Your task to perform on an android device: toggle notifications settings in the gmail app Image 0: 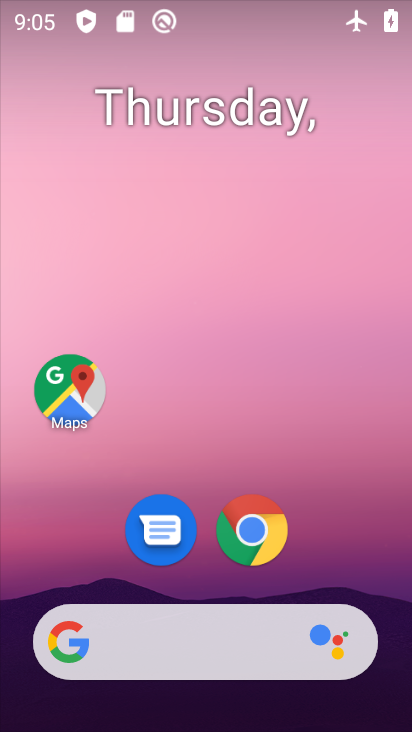
Step 0: drag from (331, 539) to (257, 11)
Your task to perform on an android device: toggle notifications settings in the gmail app Image 1: 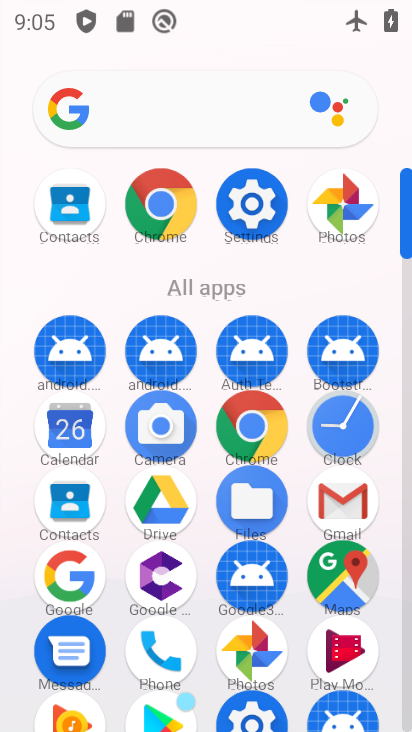
Step 1: drag from (15, 558) to (29, 248)
Your task to perform on an android device: toggle notifications settings in the gmail app Image 2: 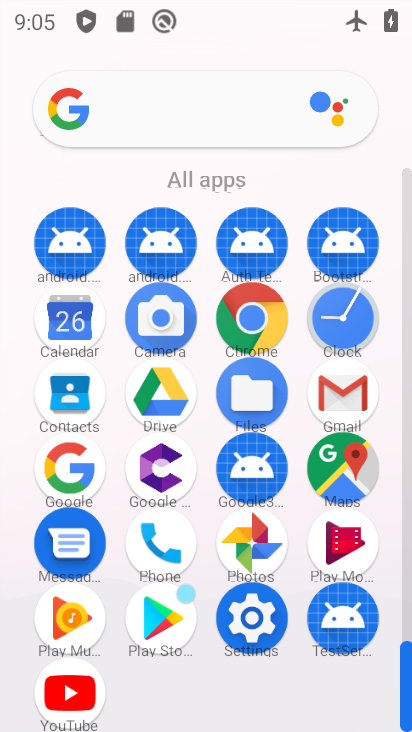
Step 2: click (344, 390)
Your task to perform on an android device: toggle notifications settings in the gmail app Image 3: 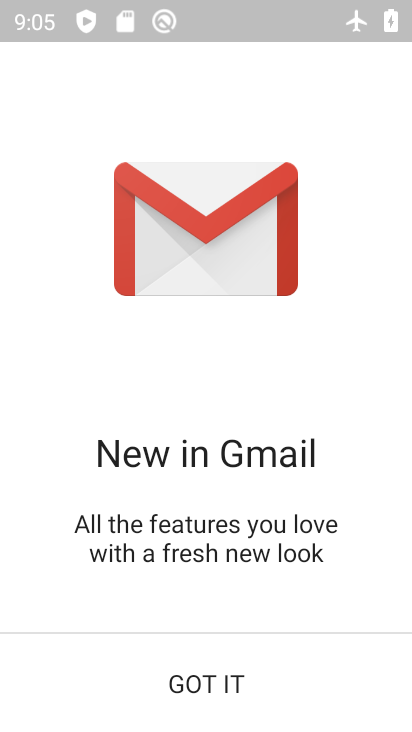
Step 3: click (220, 703)
Your task to perform on an android device: toggle notifications settings in the gmail app Image 4: 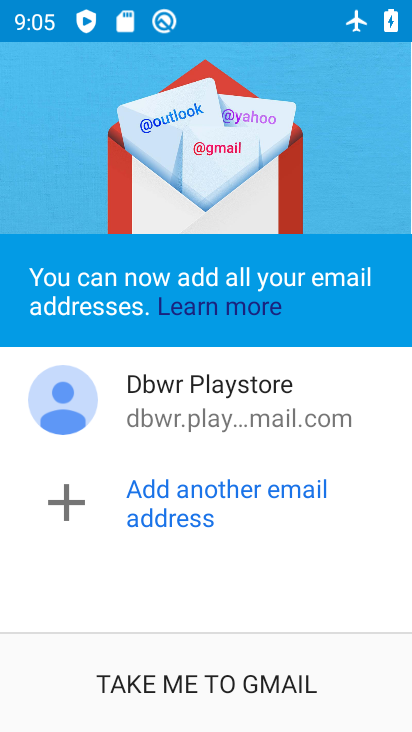
Step 4: click (217, 686)
Your task to perform on an android device: toggle notifications settings in the gmail app Image 5: 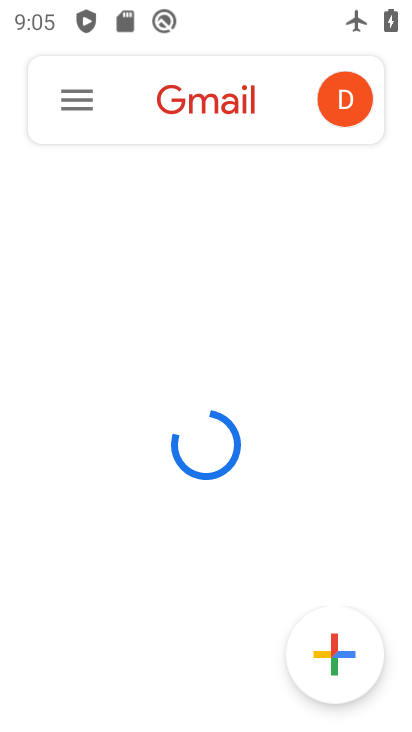
Step 5: click (88, 107)
Your task to perform on an android device: toggle notifications settings in the gmail app Image 6: 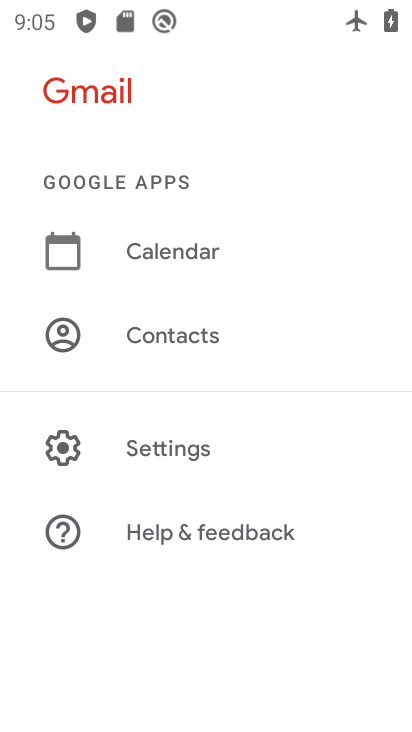
Step 6: click (175, 467)
Your task to perform on an android device: toggle notifications settings in the gmail app Image 7: 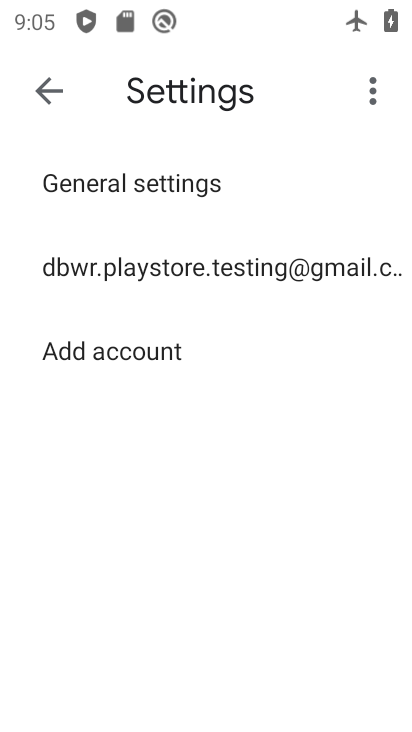
Step 7: click (200, 256)
Your task to perform on an android device: toggle notifications settings in the gmail app Image 8: 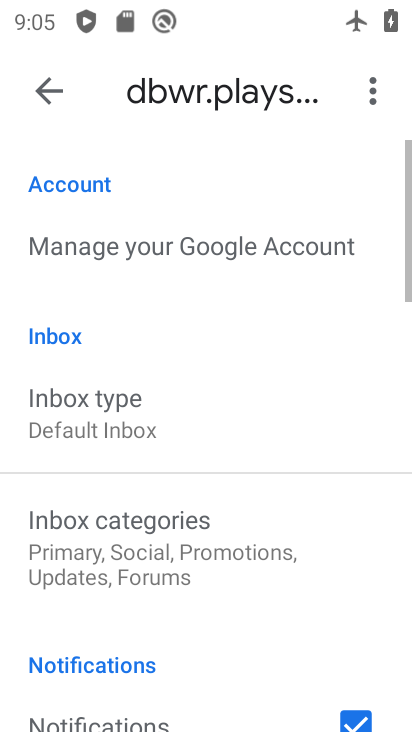
Step 8: drag from (233, 585) to (241, 204)
Your task to perform on an android device: toggle notifications settings in the gmail app Image 9: 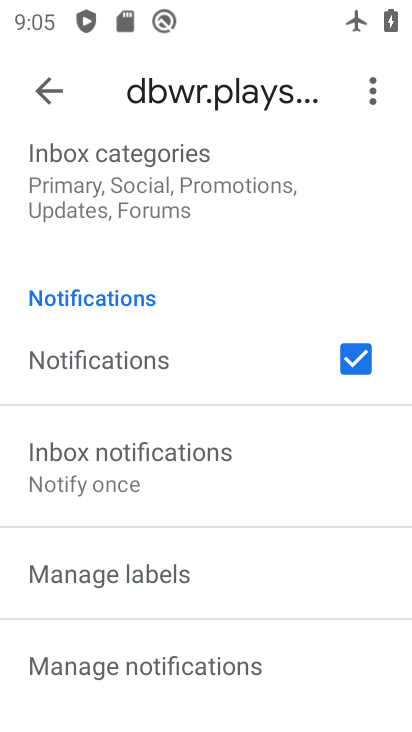
Step 9: click (184, 659)
Your task to perform on an android device: toggle notifications settings in the gmail app Image 10: 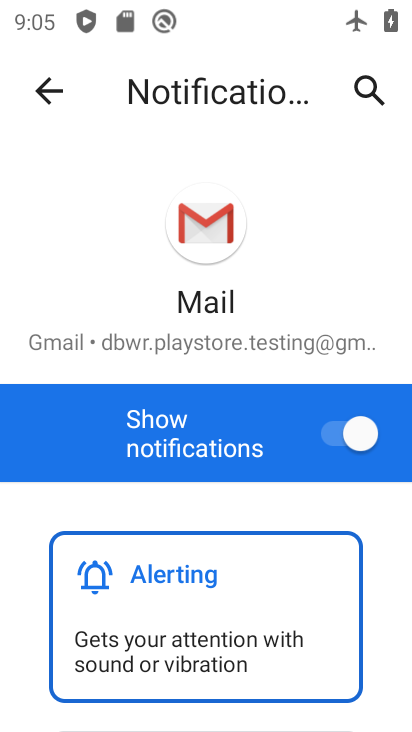
Step 10: click (353, 422)
Your task to perform on an android device: toggle notifications settings in the gmail app Image 11: 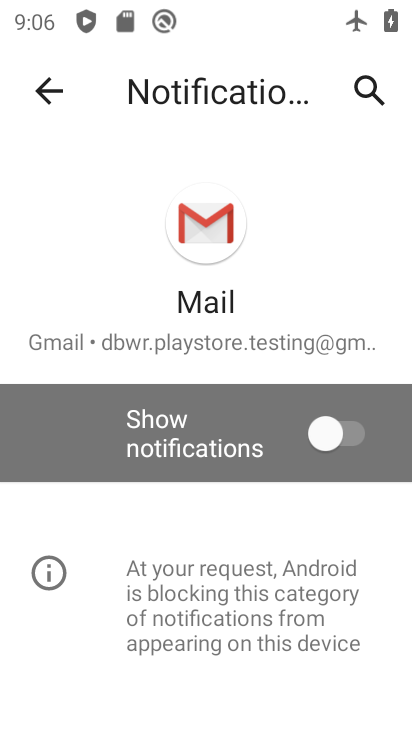
Step 11: task complete